Your task to perform on an android device: Go to Maps Image 0: 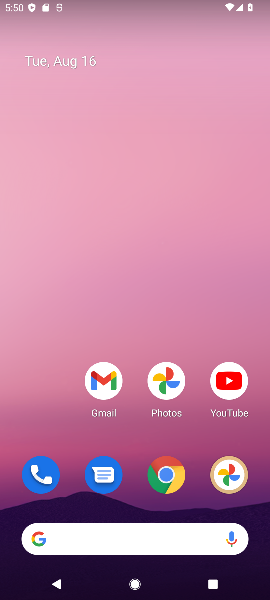
Step 0: drag from (200, 510) to (99, 38)
Your task to perform on an android device: Go to Maps Image 1: 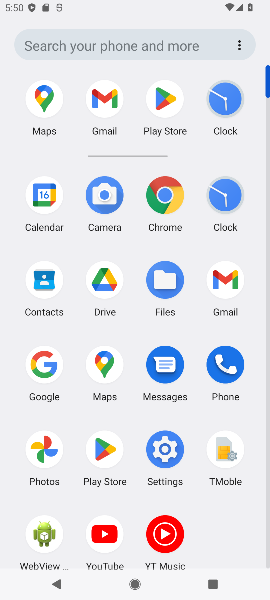
Step 1: click (102, 379)
Your task to perform on an android device: Go to Maps Image 2: 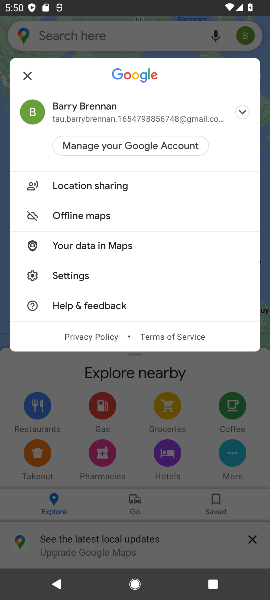
Step 2: press home button
Your task to perform on an android device: Go to Maps Image 3: 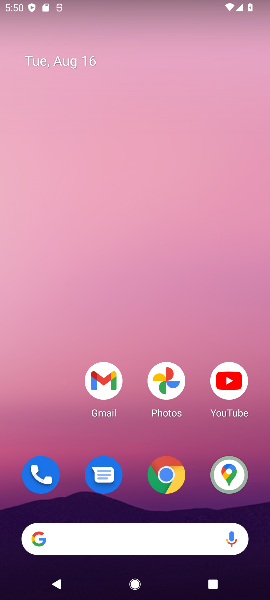
Step 3: drag from (191, 470) to (85, 44)
Your task to perform on an android device: Go to Maps Image 4: 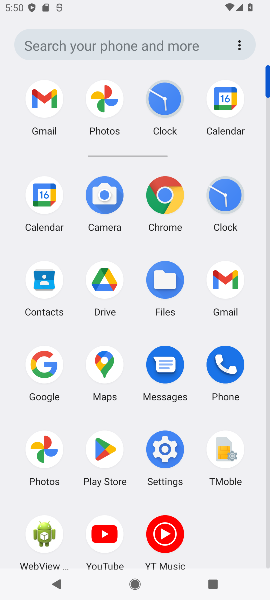
Step 4: click (104, 366)
Your task to perform on an android device: Go to Maps Image 5: 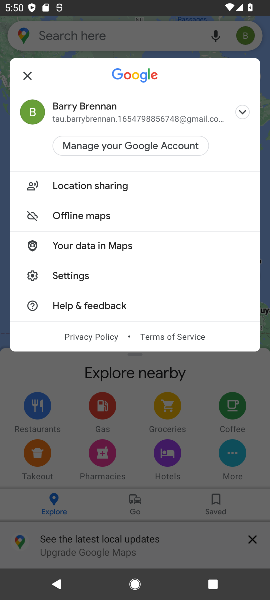
Step 5: task complete